Your task to perform on an android device: change notifications settings Image 0: 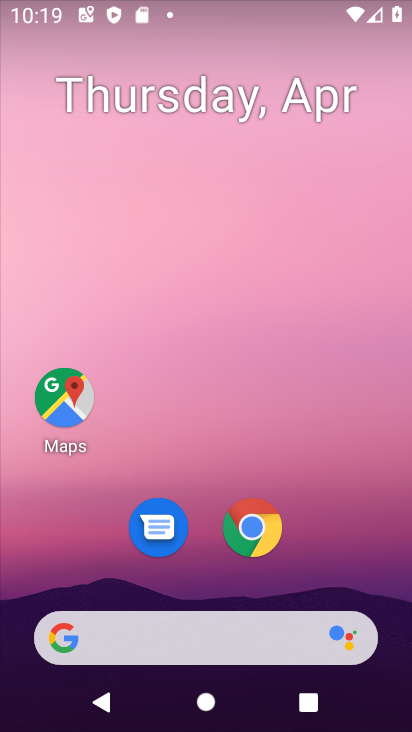
Step 0: drag from (354, 548) to (407, 431)
Your task to perform on an android device: change notifications settings Image 1: 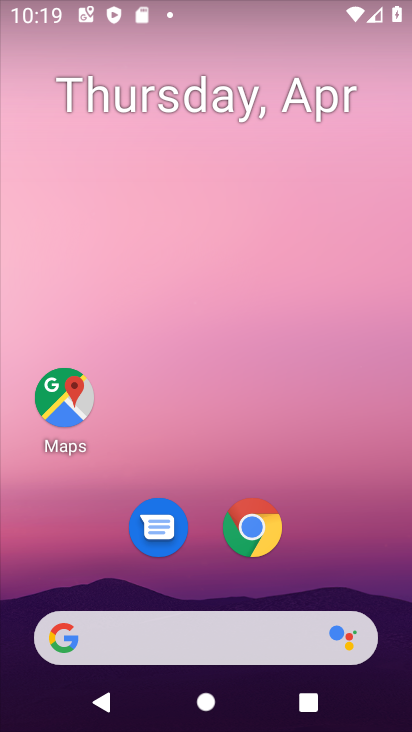
Step 1: drag from (381, 494) to (409, 244)
Your task to perform on an android device: change notifications settings Image 2: 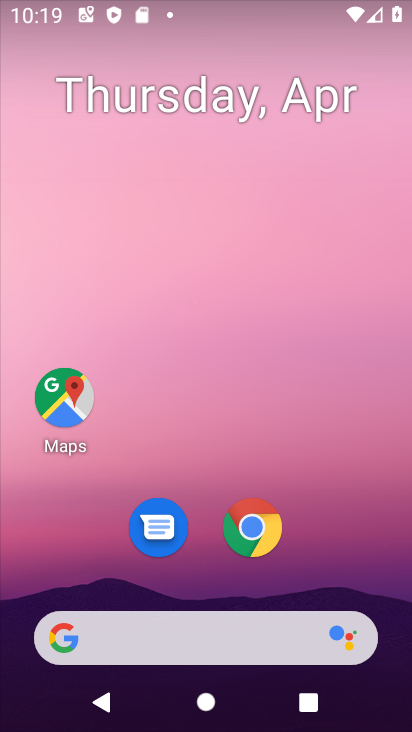
Step 2: drag from (403, 457) to (333, 1)
Your task to perform on an android device: change notifications settings Image 3: 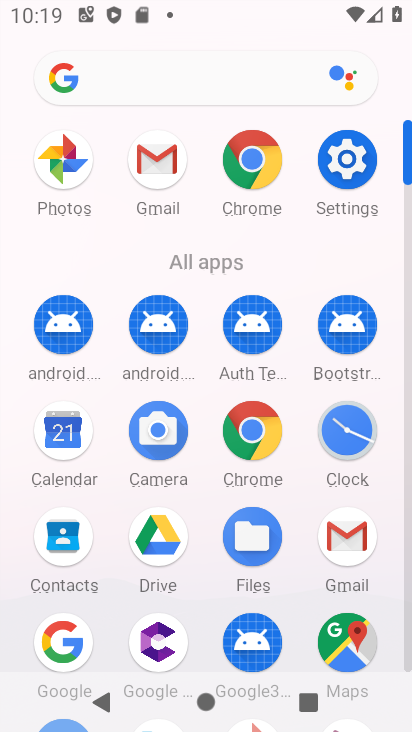
Step 3: click (354, 166)
Your task to perform on an android device: change notifications settings Image 4: 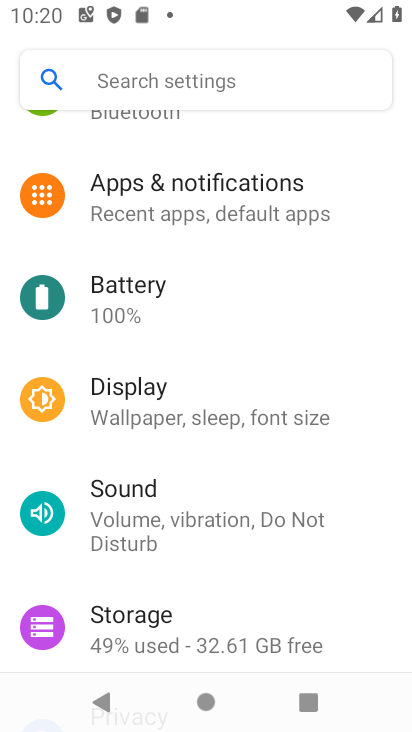
Step 4: click (225, 191)
Your task to perform on an android device: change notifications settings Image 5: 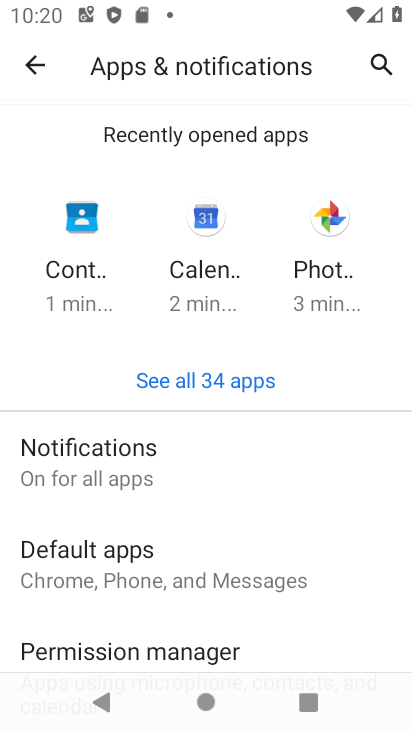
Step 5: drag from (241, 593) to (326, 228)
Your task to perform on an android device: change notifications settings Image 6: 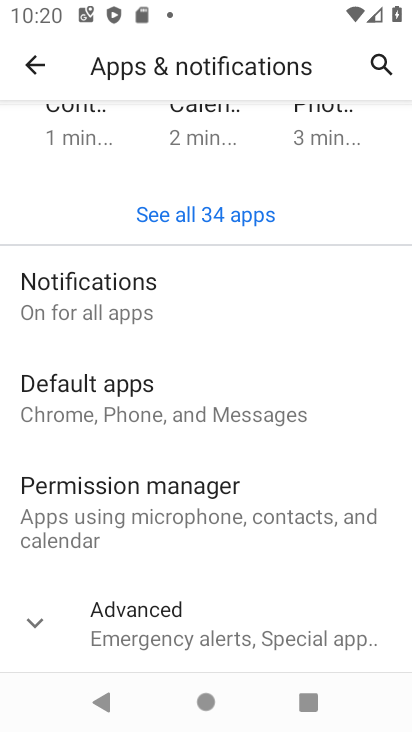
Step 6: click (69, 295)
Your task to perform on an android device: change notifications settings Image 7: 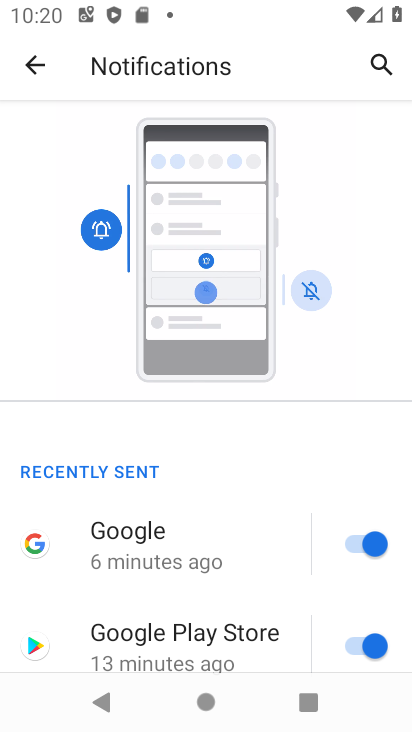
Step 7: drag from (197, 633) to (155, 117)
Your task to perform on an android device: change notifications settings Image 8: 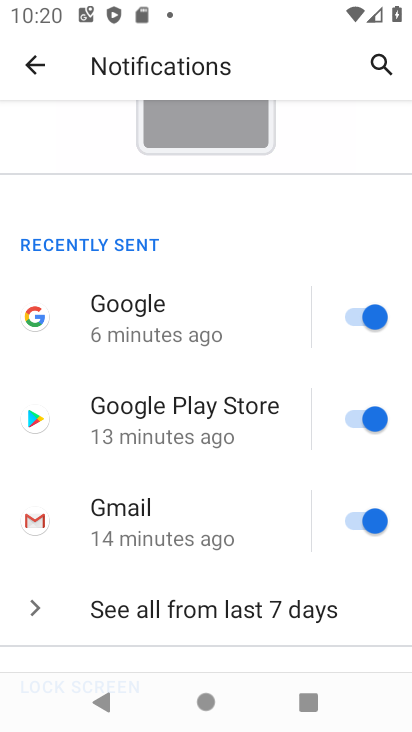
Step 8: drag from (206, 541) to (168, 156)
Your task to perform on an android device: change notifications settings Image 9: 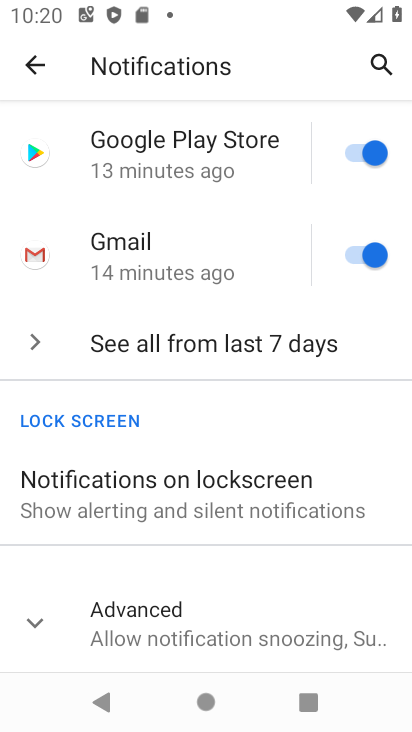
Step 9: drag from (204, 596) to (254, 316)
Your task to perform on an android device: change notifications settings Image 10: 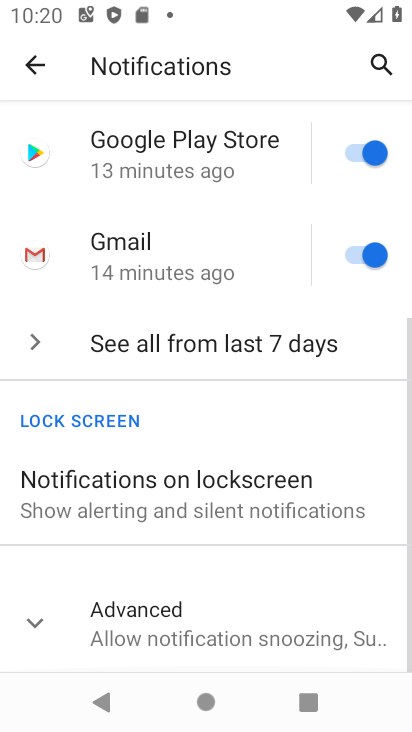
Step 10: click (160, 618)
Your task to perform on an android device: change notifications settings Image 11: 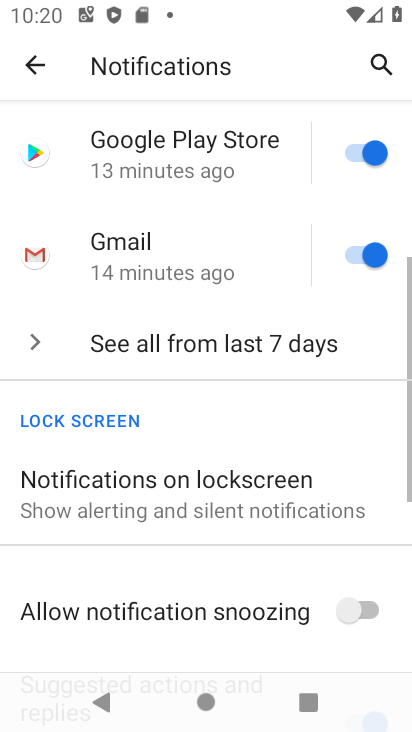
Step 11: drag from (164, 605) to (201, 305)
Your task to perform on an android device: change notifications settings Image 12: 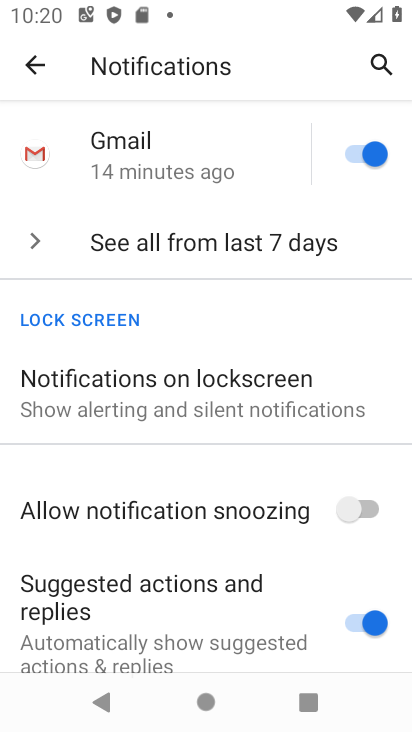
Step 12: drag from (177, 578) to (202, 308)
Your task to perform on an android device: change notifications settings Image 13: 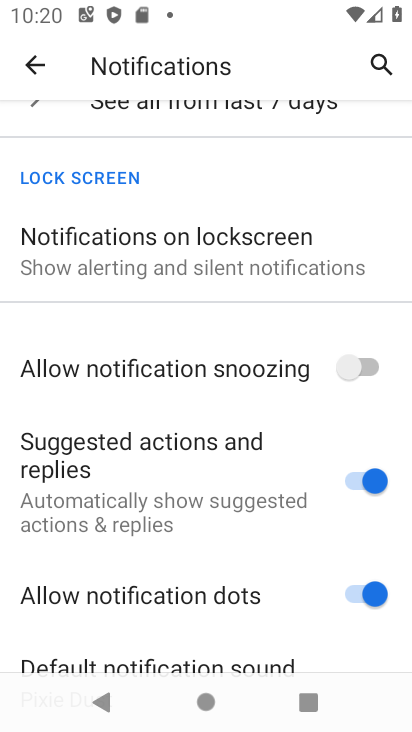
Step 13: drag from (165, 607) to (245, 347)
Your task to perform on an android device: change notifications settings Image 14: 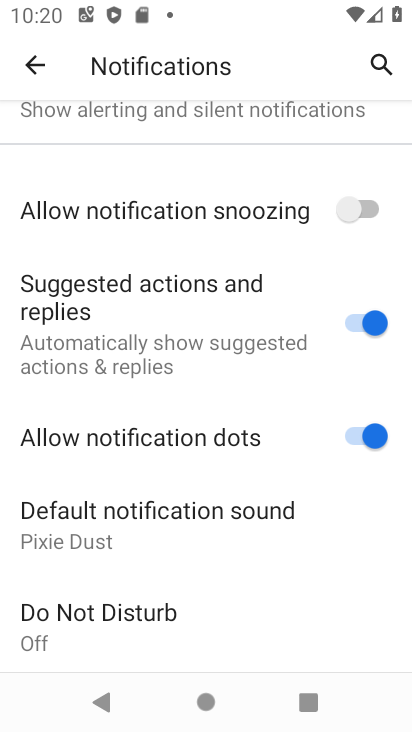
Step 14: drag from (209, 589) to (258, 234)
Your task to perform on an android device: change notifications settings Image 15: 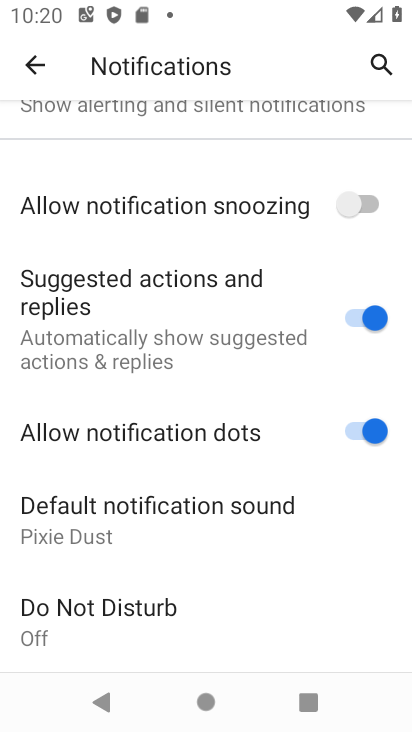
Step 15: drag from (169, 380) to (187, 628)
Your task to perform on an android device: change notifications settings Image 16: 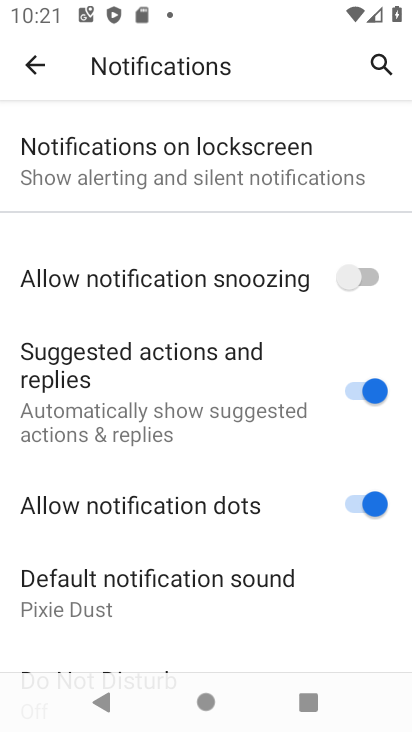
Step 16: drag from (230, 330) to (227, 474)
Your task to perform on an android device: change notifications settings Image 17: 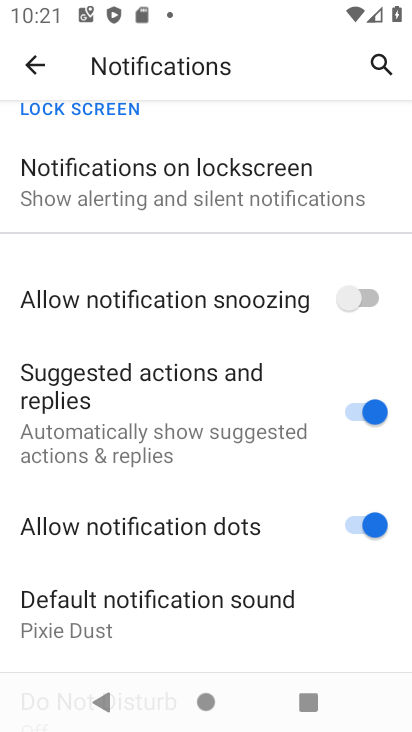
Step 17: drag from (196, 240) to (179, 546)
Your task to perform on an android device: change notifications settings Image 18: 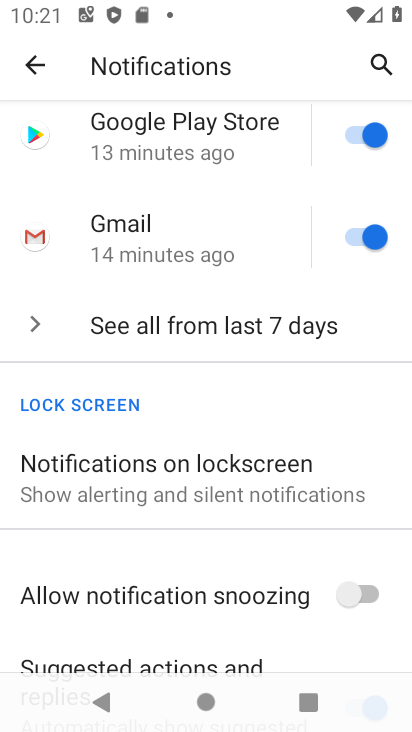
Step 18: drag from (217, 281) to (191, 617)
Your task to perform on an android device: change notifications settings Image 19: 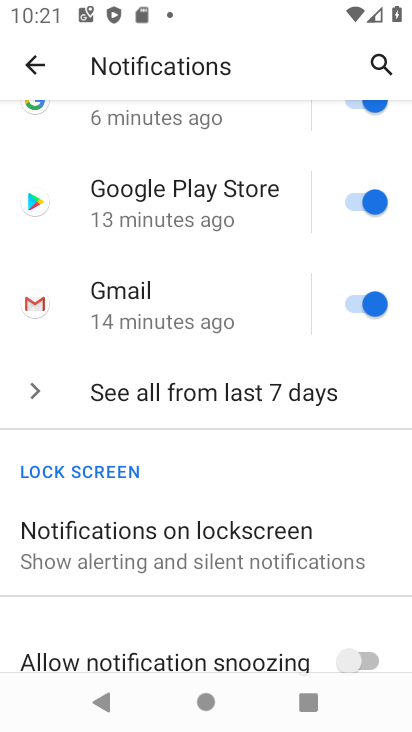
Step 19: drag from (168, 433) to (173, 212)
Your task to perform on an android device: change notifications settings Image 20: 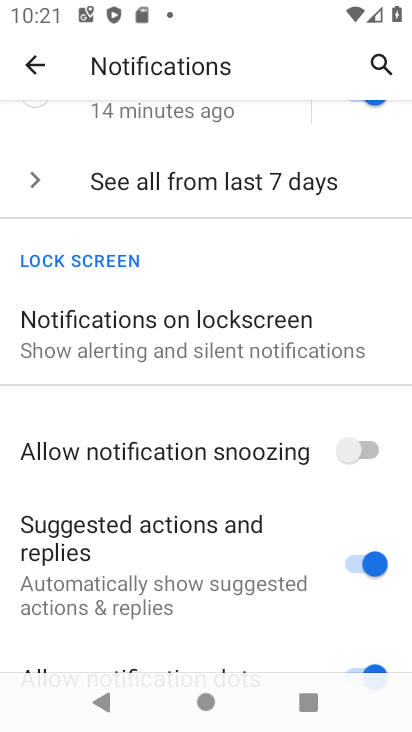
Step 20: drag from (159, 584) to (188, 282)
Your task to perform on an android device: change notifications settings Image 21: 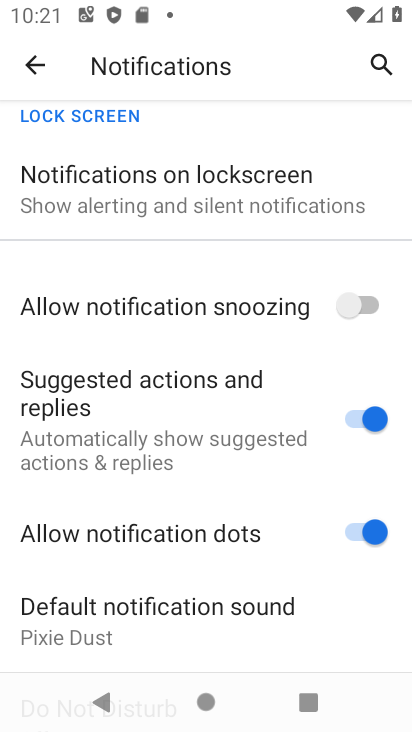
Step 21: drag from (166, 608) to (156, 294)
Your task to perform on an android device: change notifications settings Image 22: 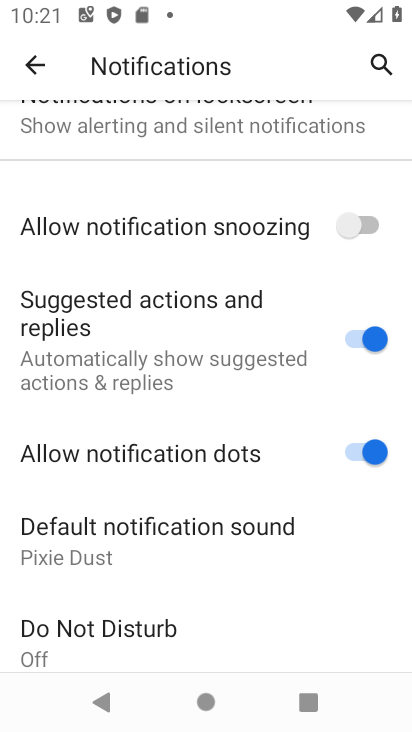
Step 22: drag from (184, 516) to (246, 138)
Your task to perform on an android device: change notifications settings Image 23: 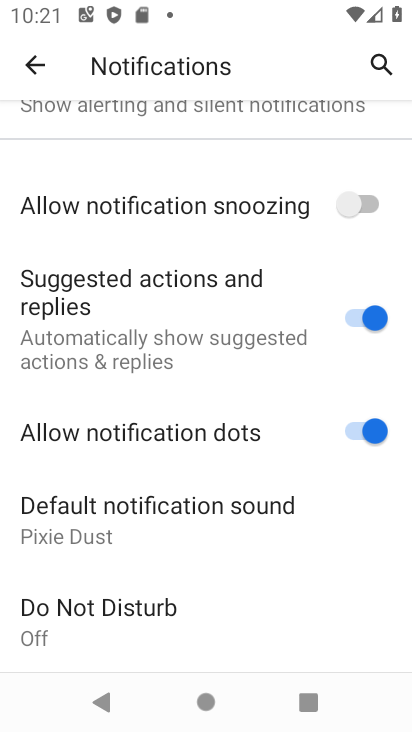
Step 23: drag from (217, 207) to (199, 537)
Your task to perform on an android device: change notifications settings Image 24: 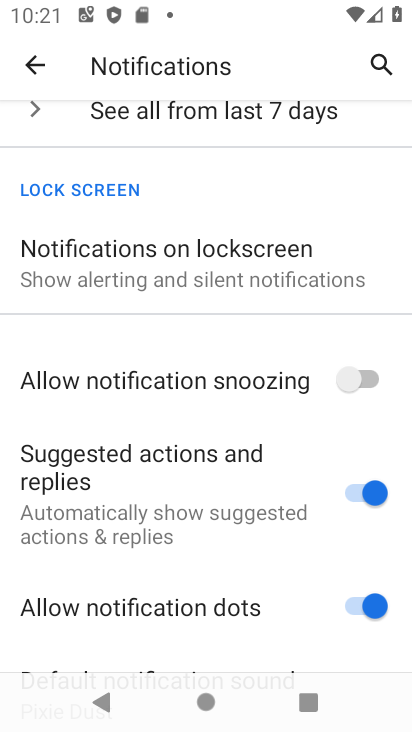
Step 24: drag from (218, 175) to (260, 577)
Your task to perform on an android device: change notifications settings Image 25: 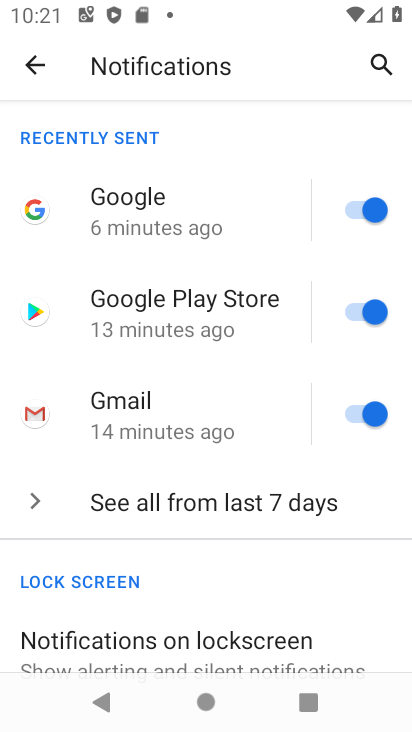
Step 25: click (373, 204)
Your task to perform on an android device: change notifications settings Image 26: 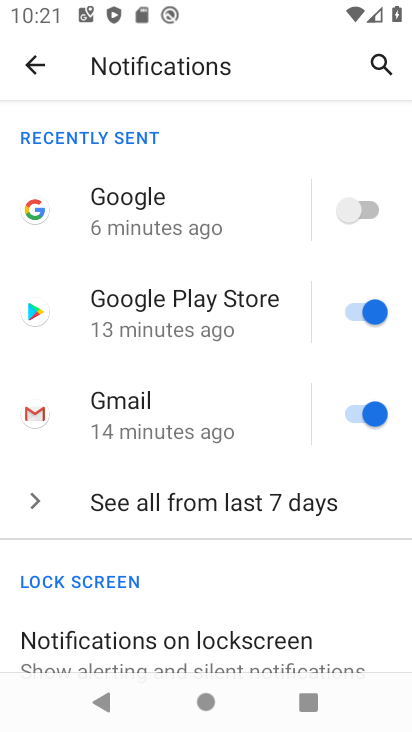
Step 26: task complete